Your task to perform on an android device: Open Google Chrome and click the shortcut for Amazon.com Image 0: 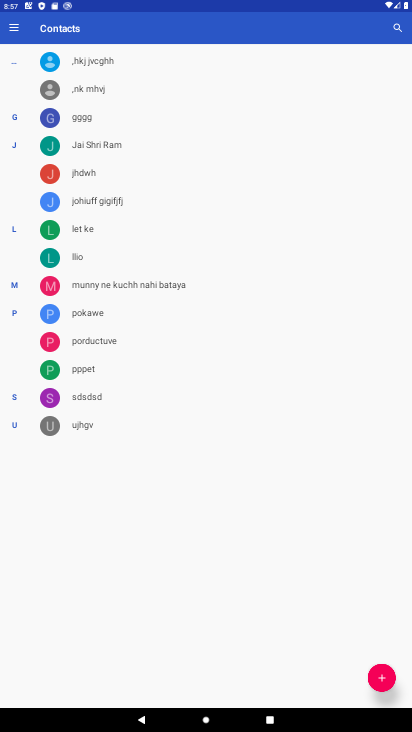
Step 0: press home button
Your task to perform on an android device: Open Google Chrome and click the shortcut for Amazon.com Image 1: 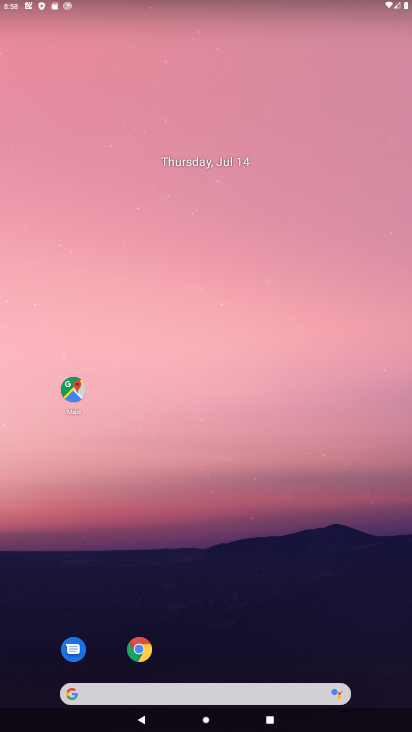
Step 1: click (139, 662)
Your task to perform on an android device: Open Google Chrome and click the shortcut for Amazon.com Image 2: 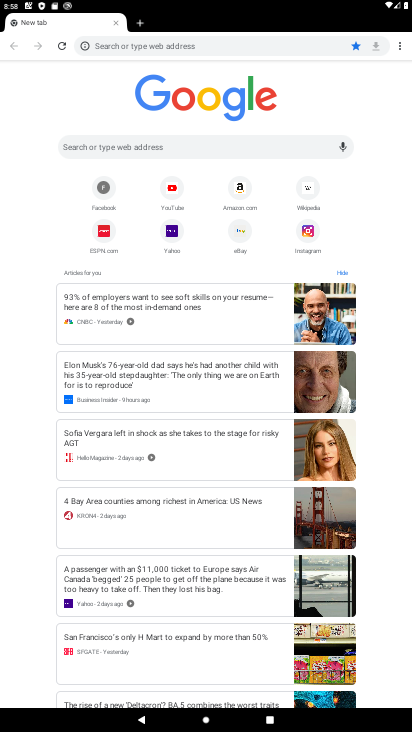
Step 2: click (402, 45)
Your task to perform on an android device: Open Google Chrome and click the shortcut for Amazon.com Image 3: 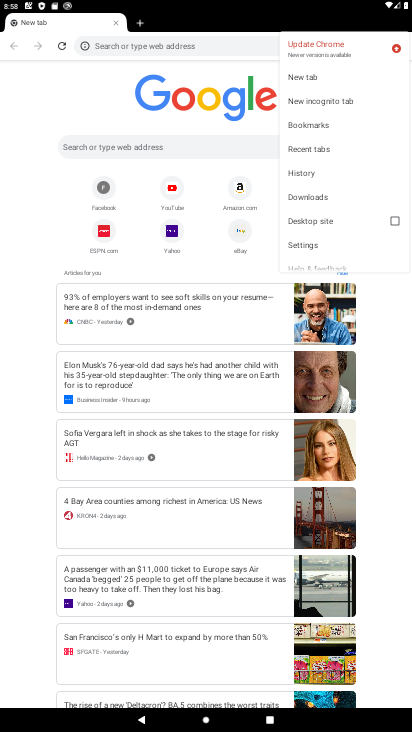
Step 3: click (238, 188)
Your task to perform on an android device: Open Google Chrome and click the shortcut for Amazon.com Image 4: 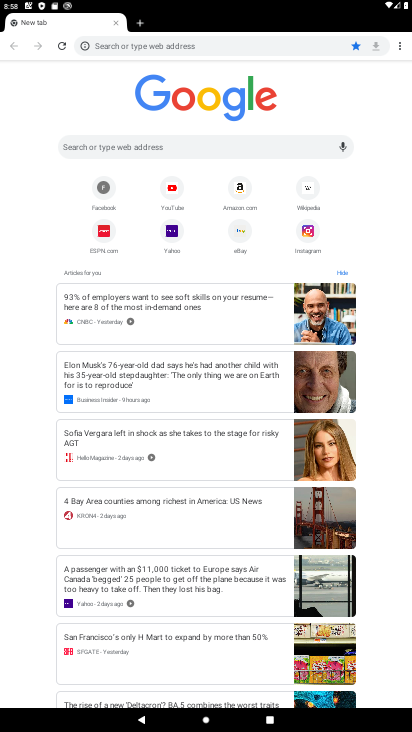
Step 4: click (238, 188)
Your task to perform on an android device: Open Google Chrome and click the shortcut for Amazon.com Image 5: 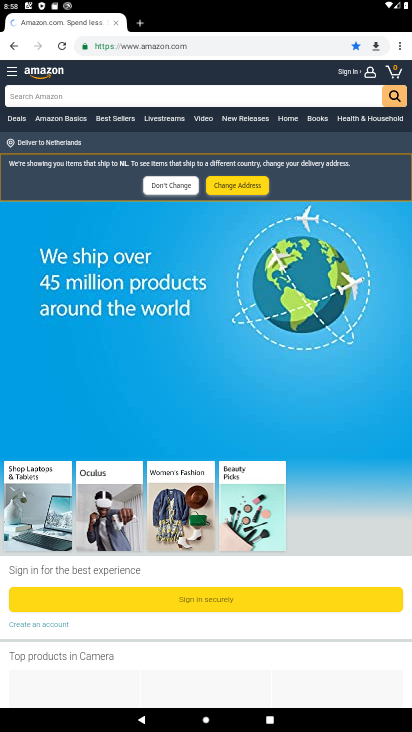
Step 5: task complete